Your task to perform on an android device: toggle notifications settings in the gmail app Image 0: 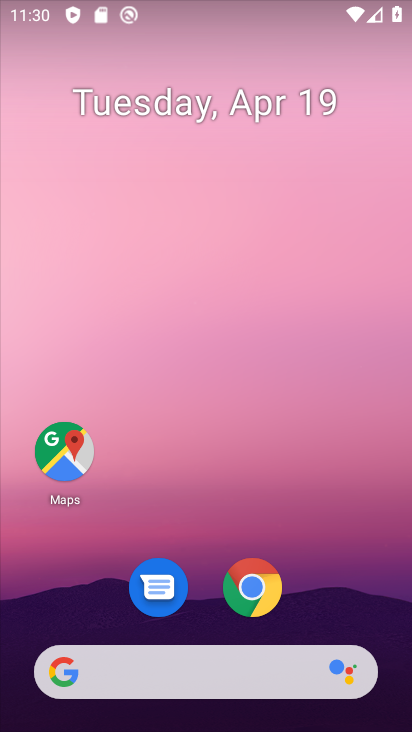
Step 0: drag from (214, 403) to (251, 89)
Your task to perform on an android device: toggle notifications settings in the gmail app Image 1: 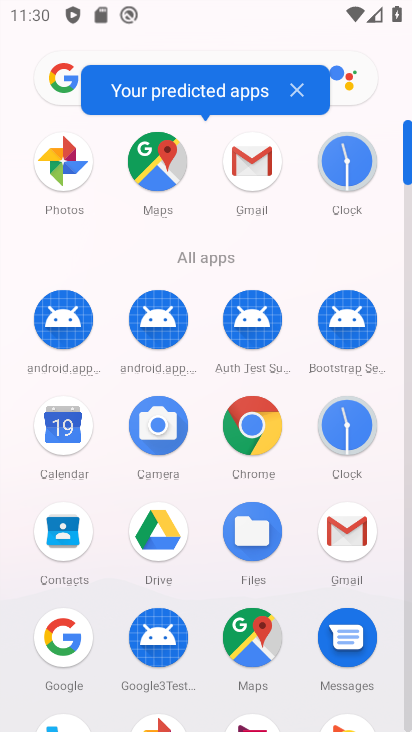
Step 1: click (252, 139)
Your task to perform on an android device: toggle notifications settings in the gmail app Image 2: 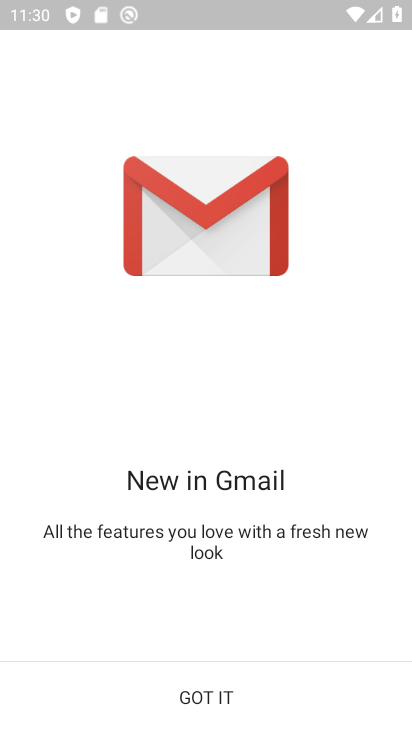
Step 2: click (202, 693)
Your task to perform on an android device: toggle notifications settings in the gmail app Image 3: 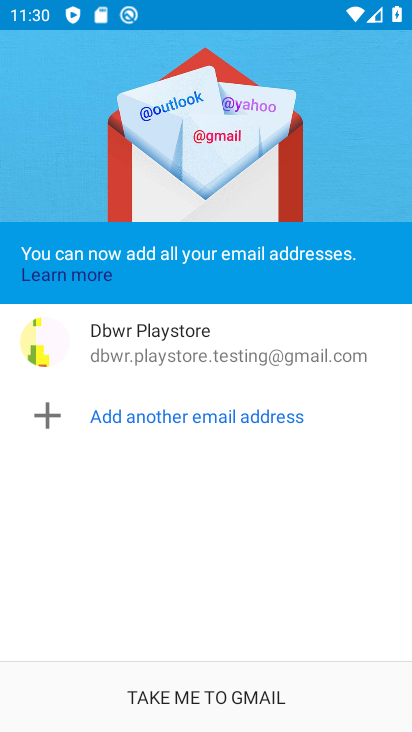
Step 3: click (205, 685)
Your task to perform on an android device: toggle notifications settings in the gmail app Image 4: 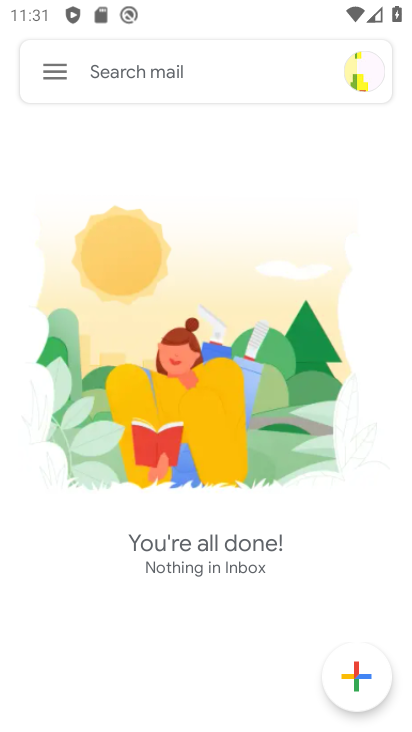
Step 4: click (60, 79)
Your task to perform on an android device: toggle notifications settings in the gmail app Image 5: 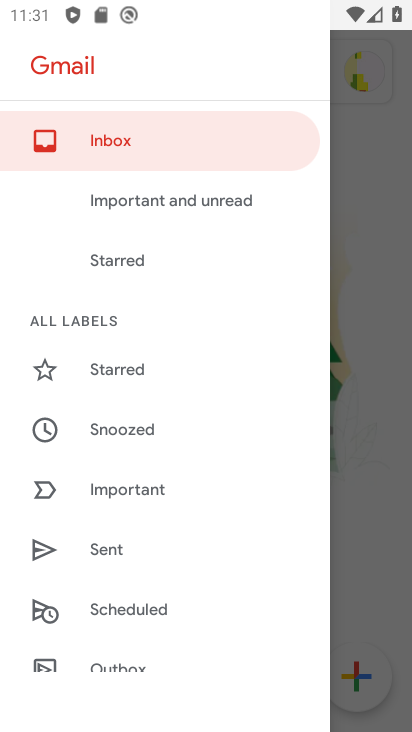
Step 5: click (385, 121)
Your task to perform on an android device: toggle notifications settings in the gmail app Image 6: 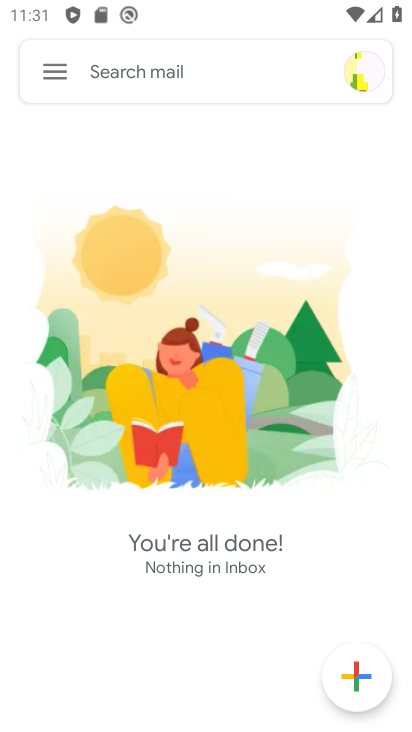
Step 6: click (53, 70)
Your task to perform on an android device: toggle notifications settings in the gmail app Image 7: 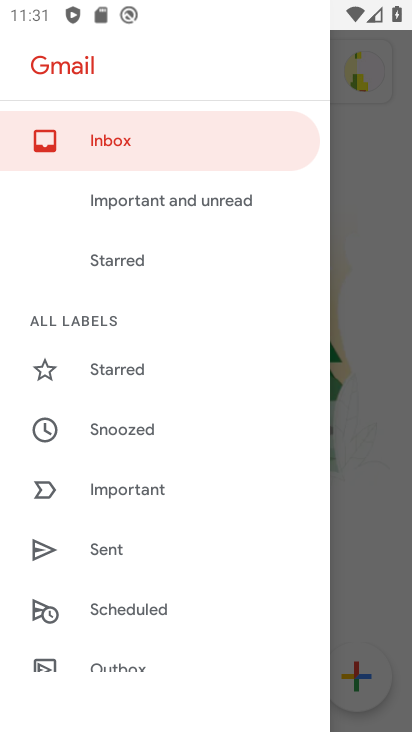
Step 7: drag from (118, 486) to (194, 64)
Your task to perform on an android device: toggle notifications settings in the gmail app Image 8: 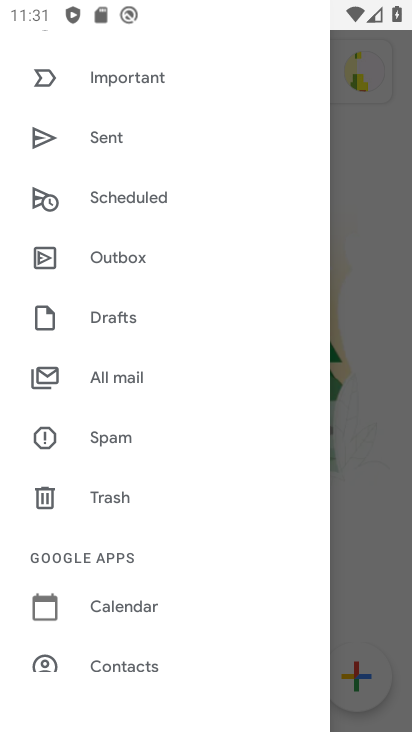
Step 8: drag from (169, 662) to (223, 283)
Your task to perform on an android device: toggle notifications settings in the gmail app Image 9: 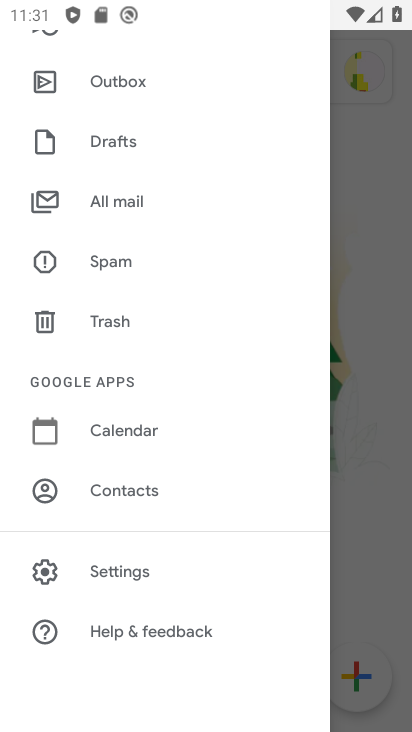
Step 9: click (124, 566)
Your task to perform on an android device: toggle notifications settings in the gmail app Image 10: 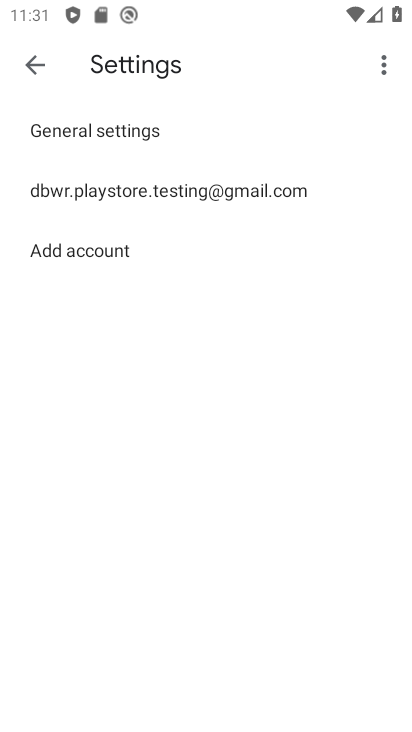
Step 10: task complete